Your task to perform on an android device: change notifications settings Image 0: 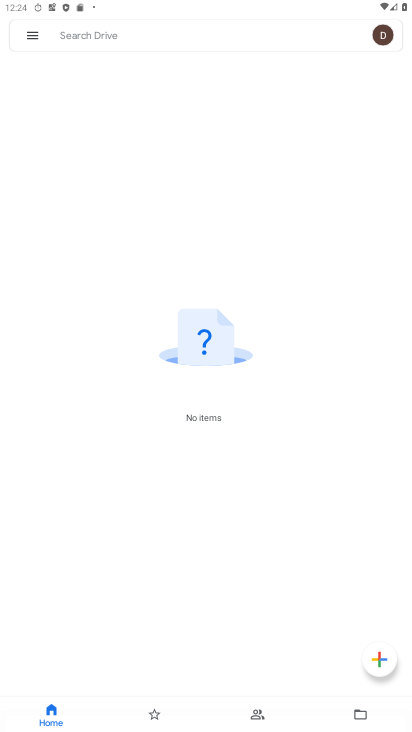
Step 0: press home button
Your task to perform on an android device: change notifications settings Image 1: 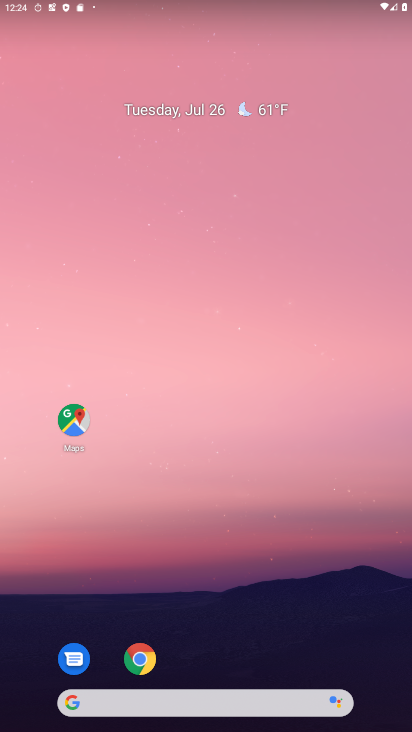
Step 1: drag from (40, 683) to (160, 180)
Your task to perform on an android device: change notifications settings Image 2: 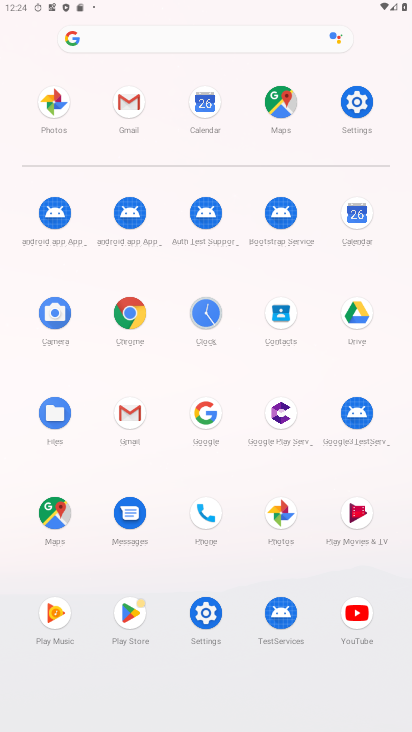
Step 2: click (208, 611)
Your task to perform on an android device: change notifications settings Image 3: 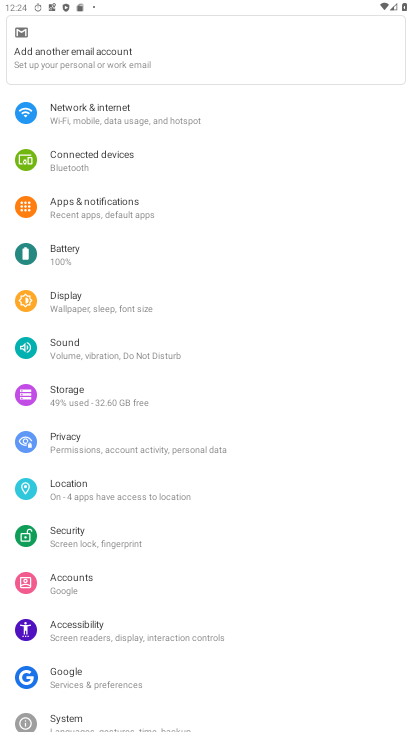
Step 3: click (114, 219)
Your task to perform on an android device: change notifications settings Image 4: 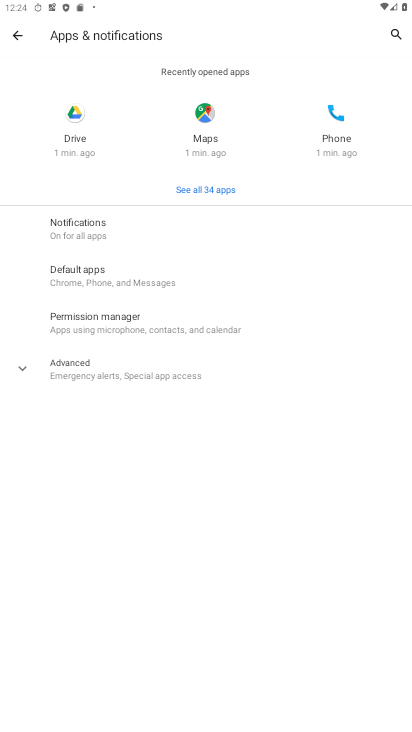
Step 4: click (90, 229)
Your task to perform on an android device: change notifications settings Image 5: 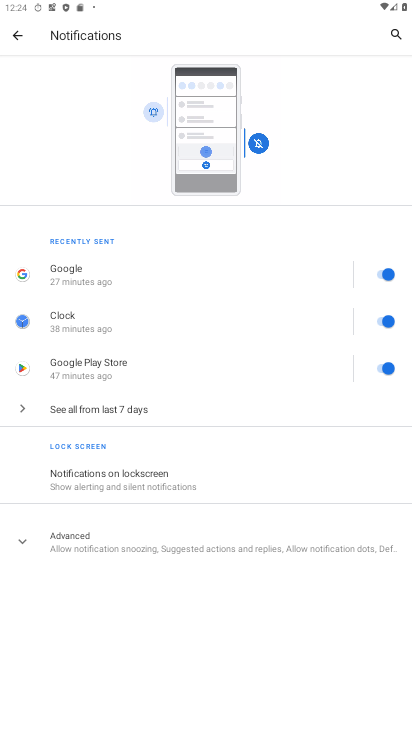
Step 5: task complete